Your task to perform on an android device: change timer sound Image 0: 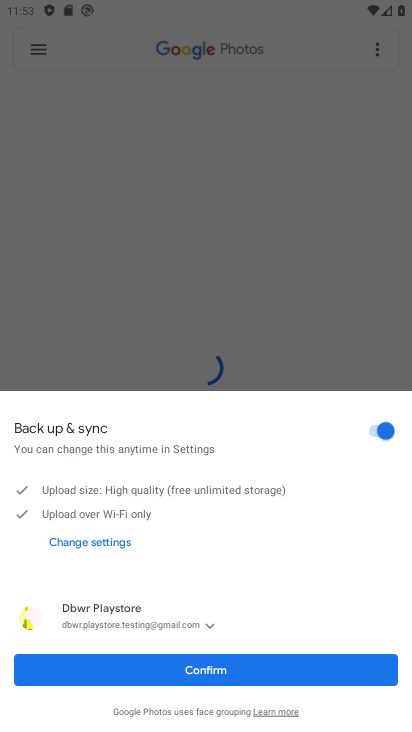
Step 0: press home button
Your task to perform on an android device: change timer sound Image 1: 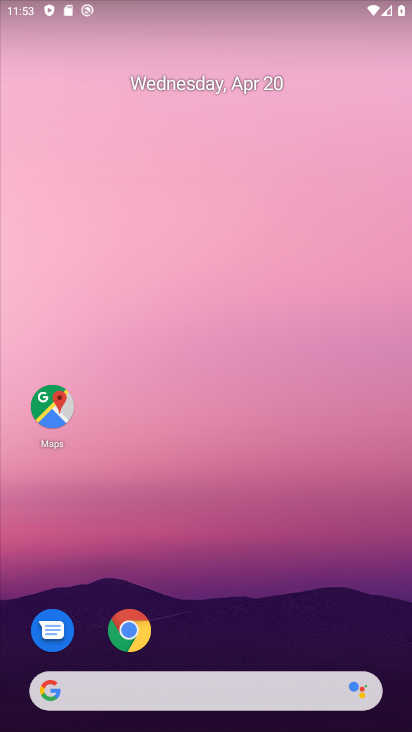
Step 1: drag from (320, 623) to (250, 210)
Your task to perform on an android device: change timer sound Image 2: 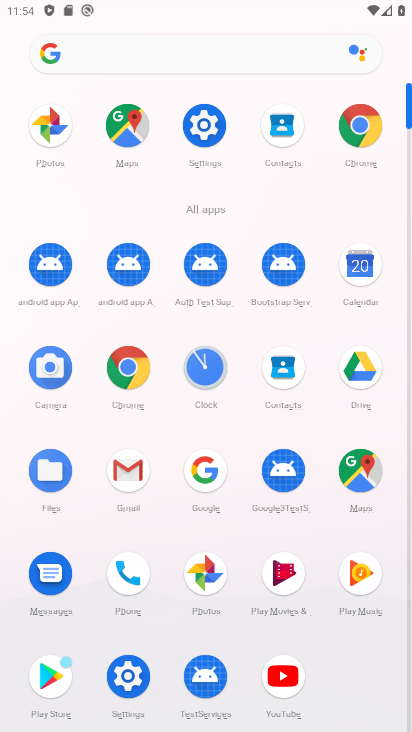
Step 2: click (201, 381)
Your task to perform on an android device: change timer sound Image 3: 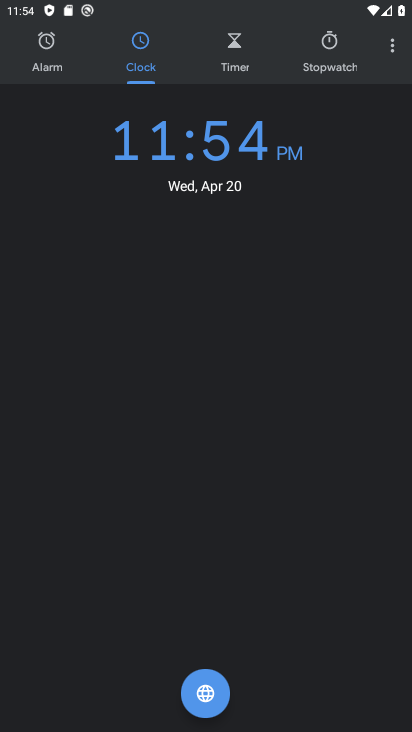
Step 3: click (395, 52)
Your task to perform on an android device: change timer sound Image 4: 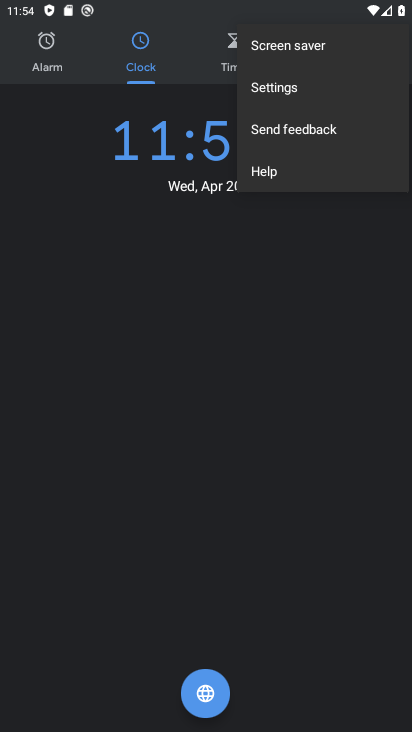
Step 4: click (356, 88)
Your task to perform on an android device: change timer sound Image 5: 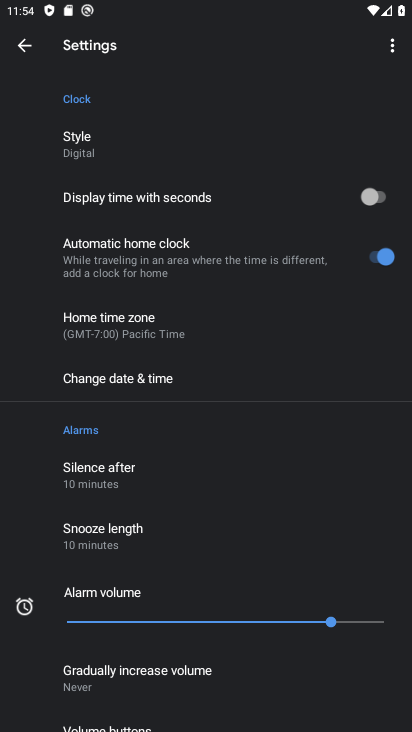
Step 5: drag from (223, 583) to (223, 297)
Your task to perform on an android device: change timer sound Image 6: 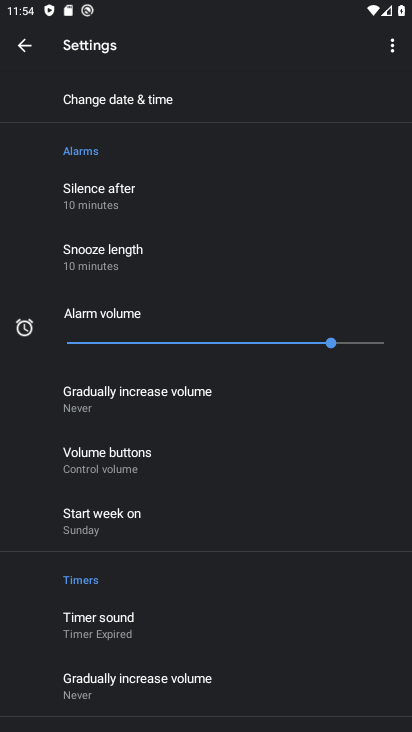
Step 6: click (259, 635)
Your task to perform on an android device: change timer sound Image 7: 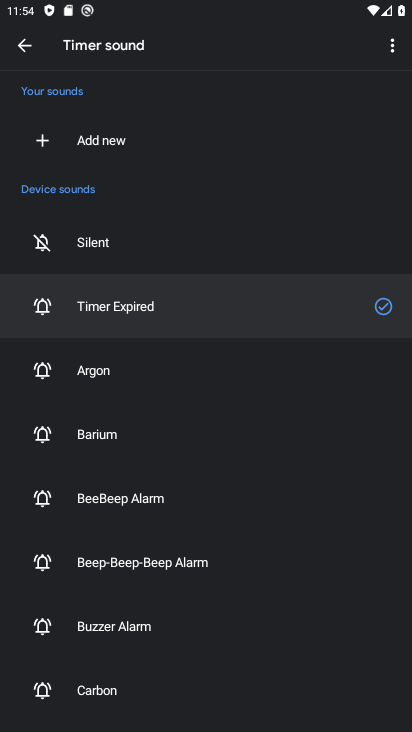
Step 7: click (200, 448)
Your task to perform on an android device: change timer sound Image 8: 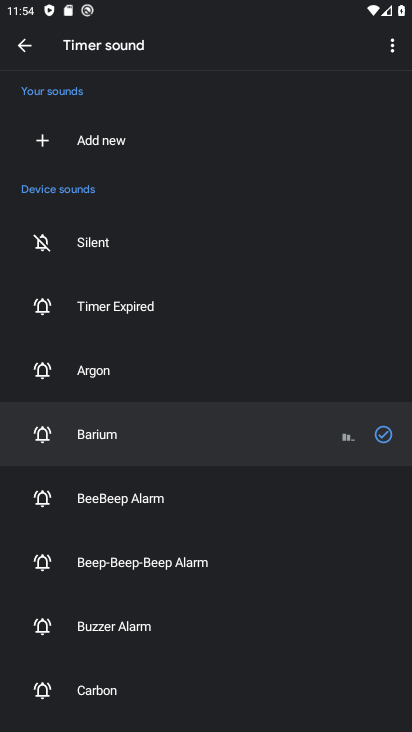
Step 8: task complete